Your task to perform on an android device: set default search engine in the chrome app Image 0: 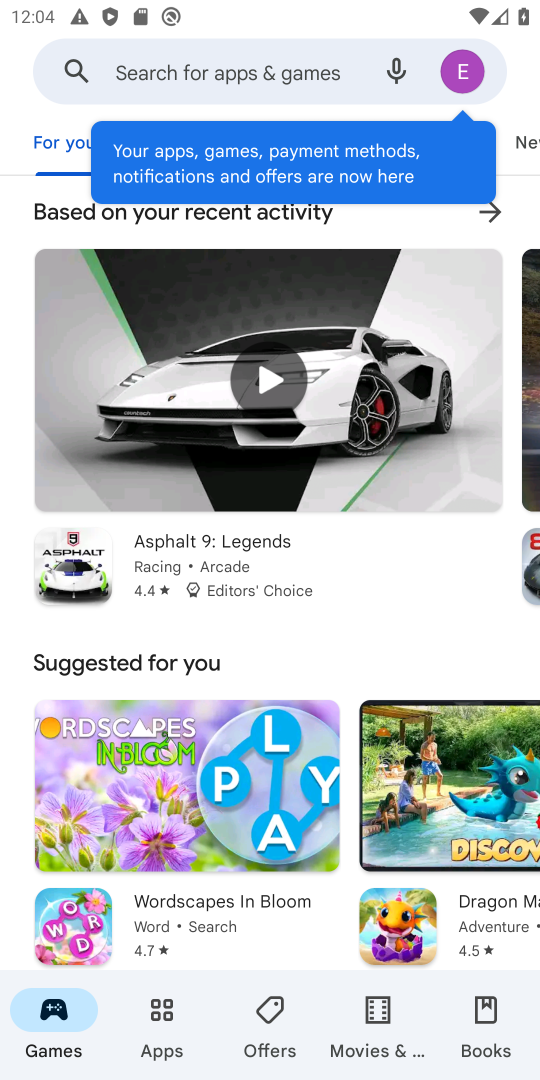
Step 0: press home button
Your task to perform on an android device: set default search engine in the chrome app Image 1: 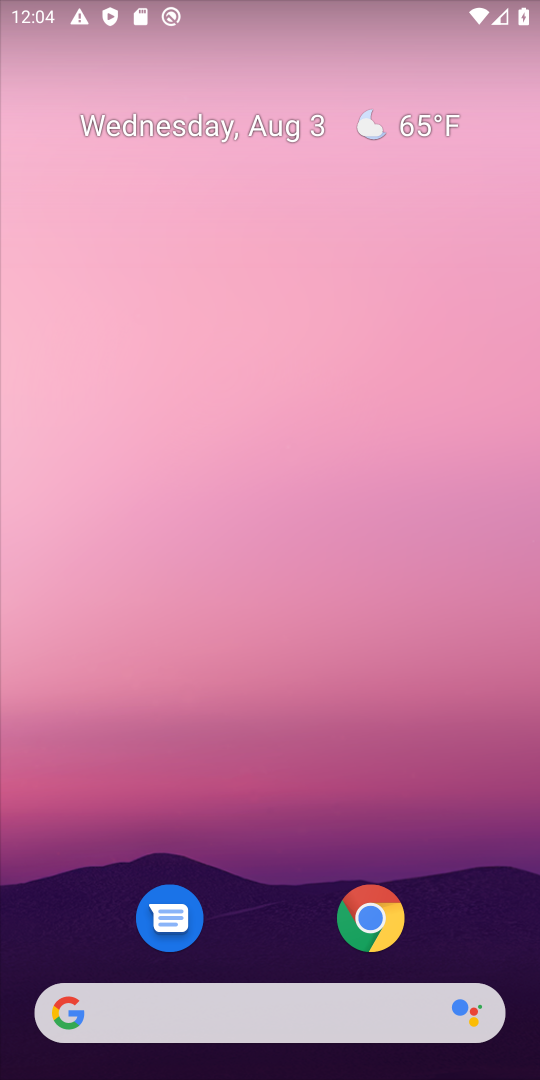
Step 1: click (368, 910)
Your task to perform on an android device: set default search engine in the chrome app Image 2: 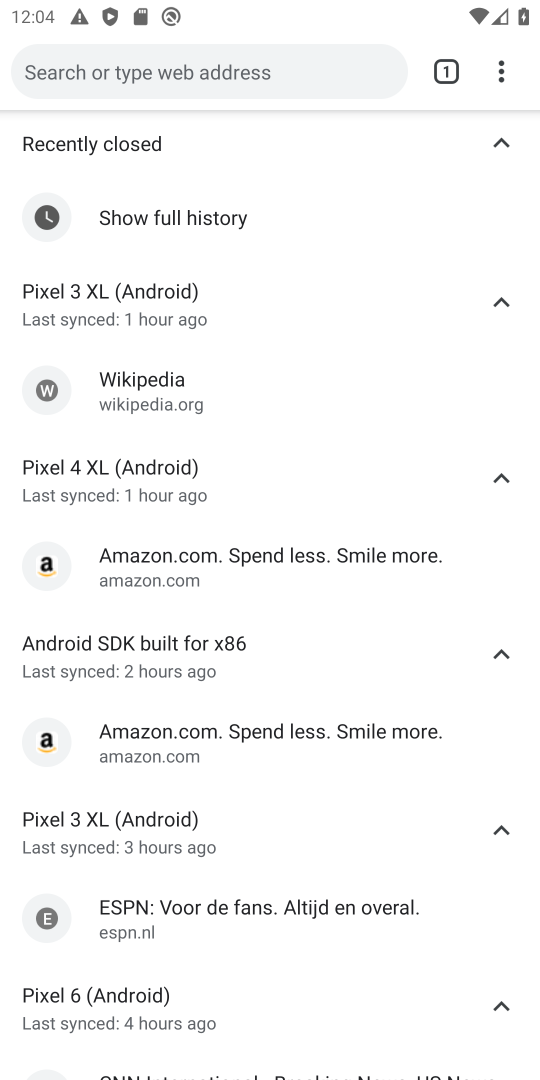
Step 2: press home button
Your task to perform on an android device: set default search engine in the chrome app Image 3: 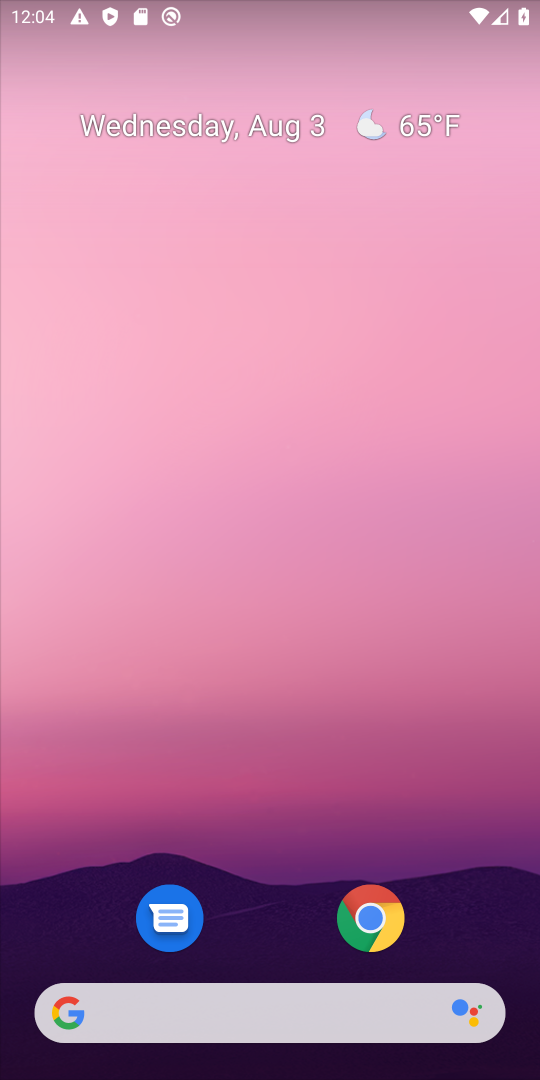
Step 3: click (372, 911)
Your task to perform on an android device: set default search engine in the chrome app Image 4: 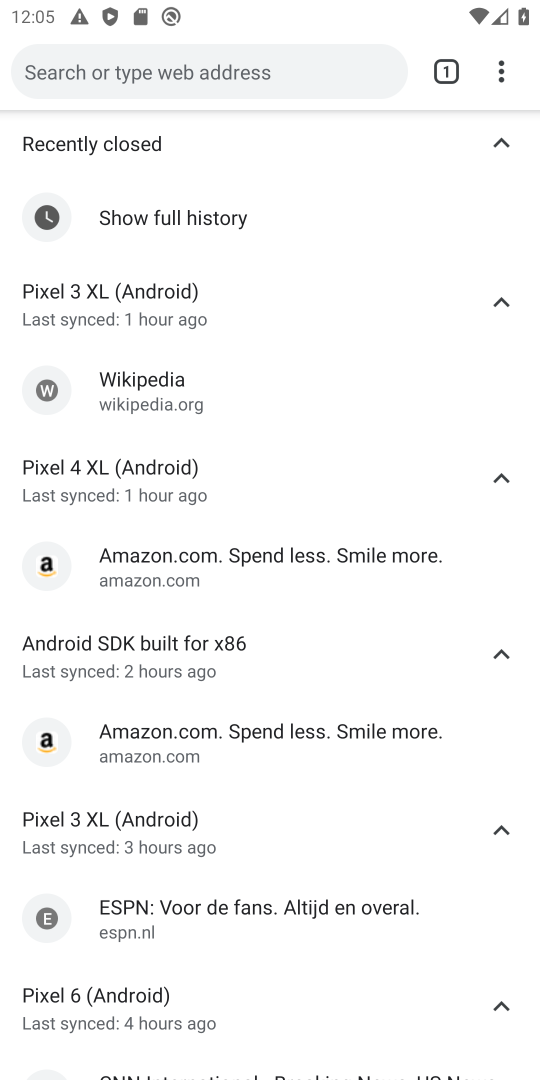
Step 4: click (496, 69)
Your task to perform on an android device: set default search engine in the chrome app Image 5: 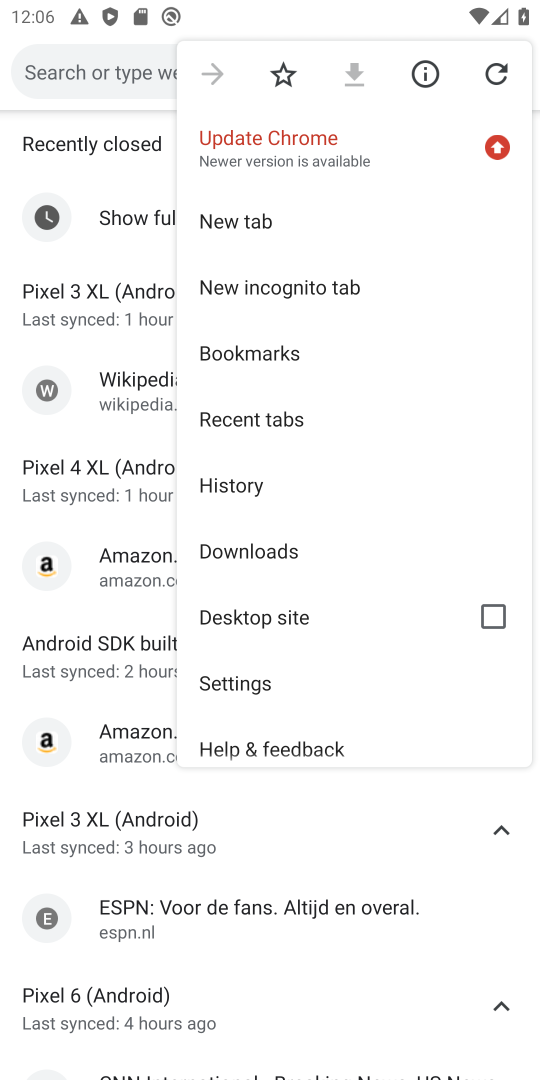
Step 5: click (252, 688)
Your task to perform on an android device: set default search engine in the chrome app Image 6: 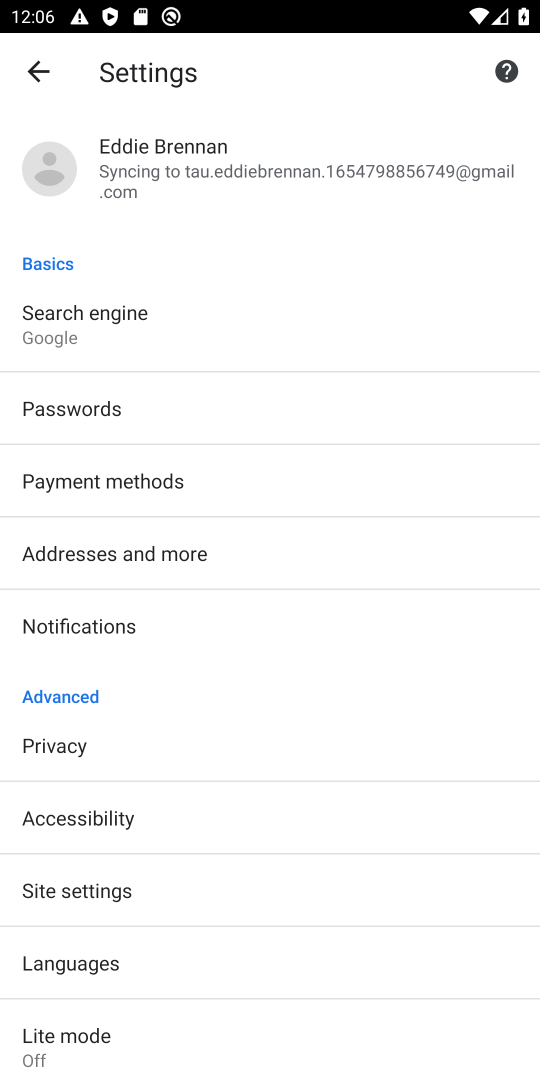
Step 6: click (121, 300)
Your task to perform on an android device: set default search engine in the chrome app Image 7: 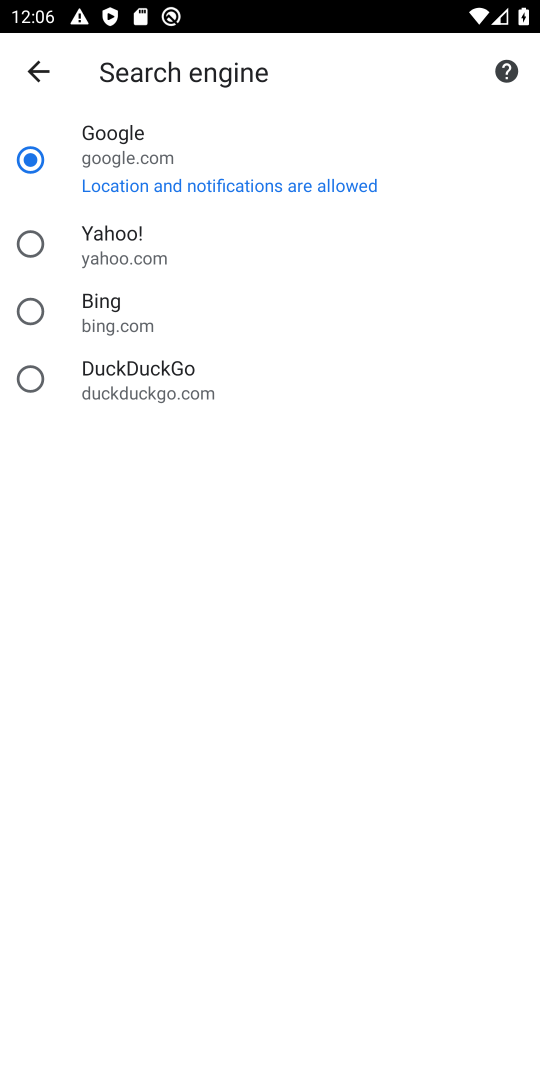
Step 7: task complete